Your task to perform on an android device: Open Maps and search for coffee Image 0: 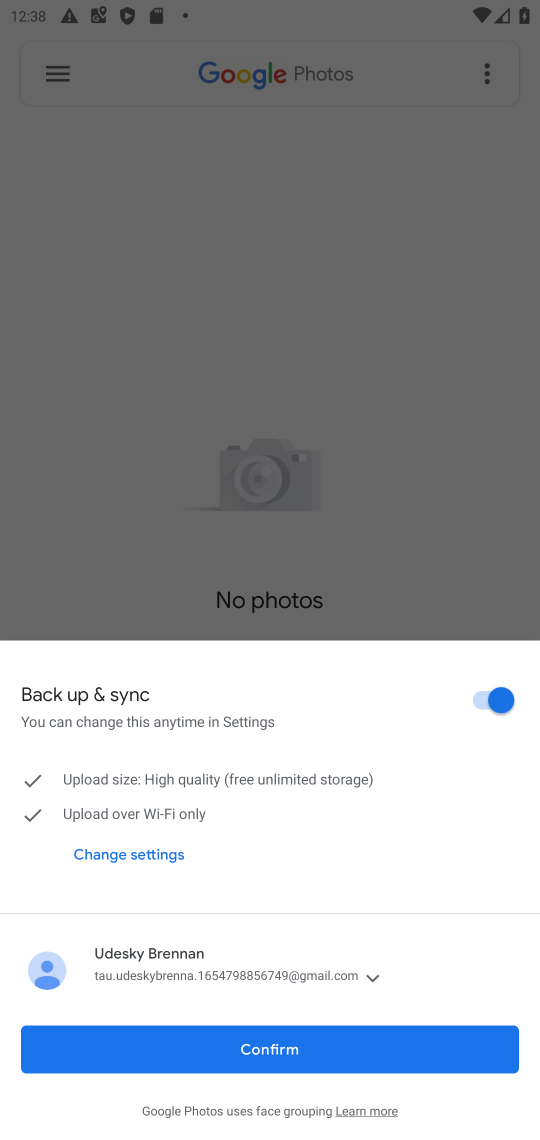
Step 0: press home button
Your task to perform on an android device: Open Maps and search for coffee Image 1: 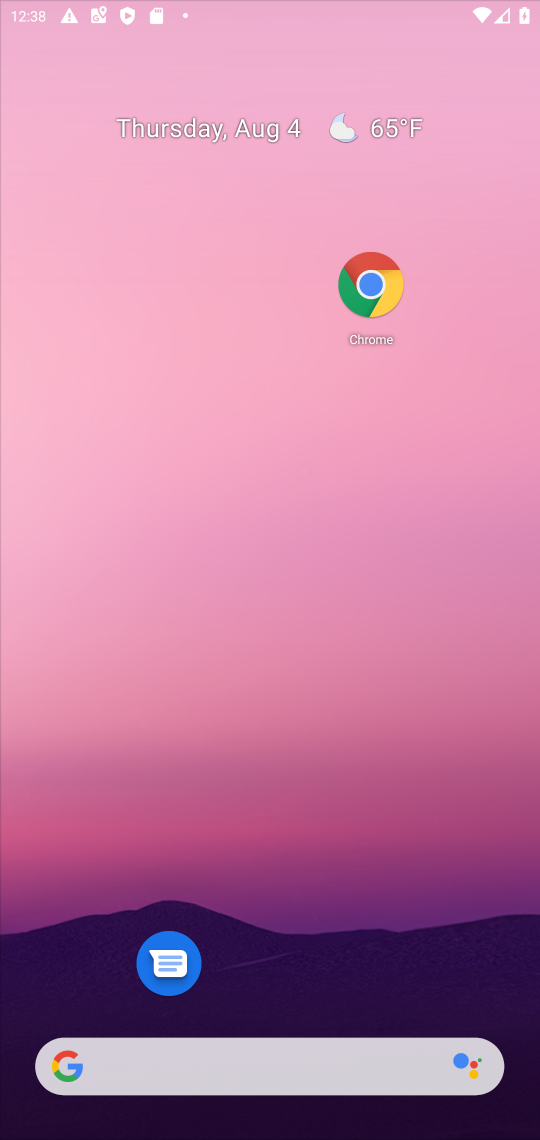
Step 1: drag from (157, 1057) to (230, 275)
Your task to perform on an android device: Open Maps and search for coffee Image 2: 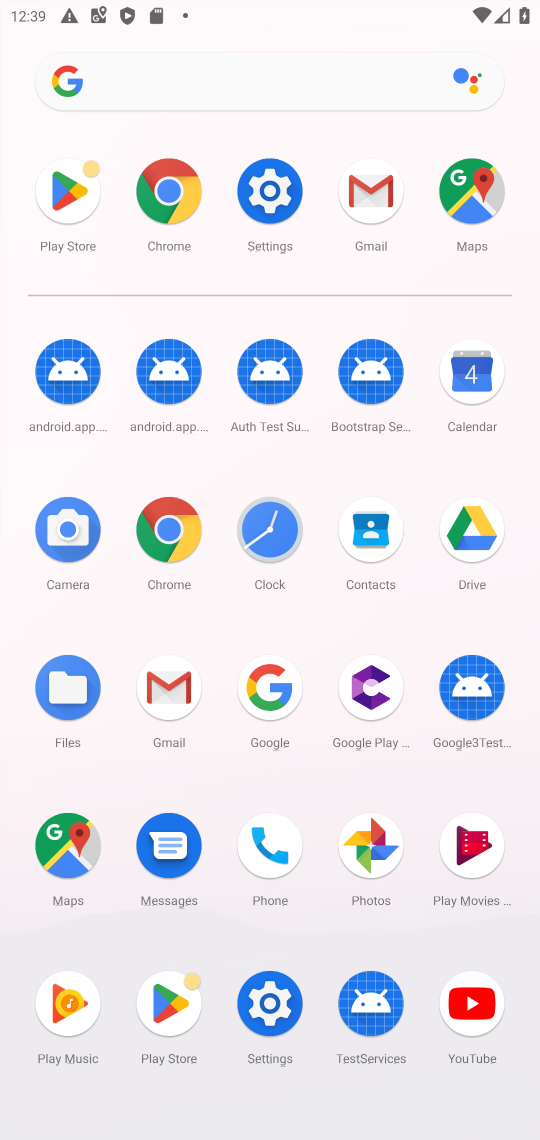
Step 2: click (62, 858)
Your task to perform on an android device: Open Maps and search for coffee Image 3: 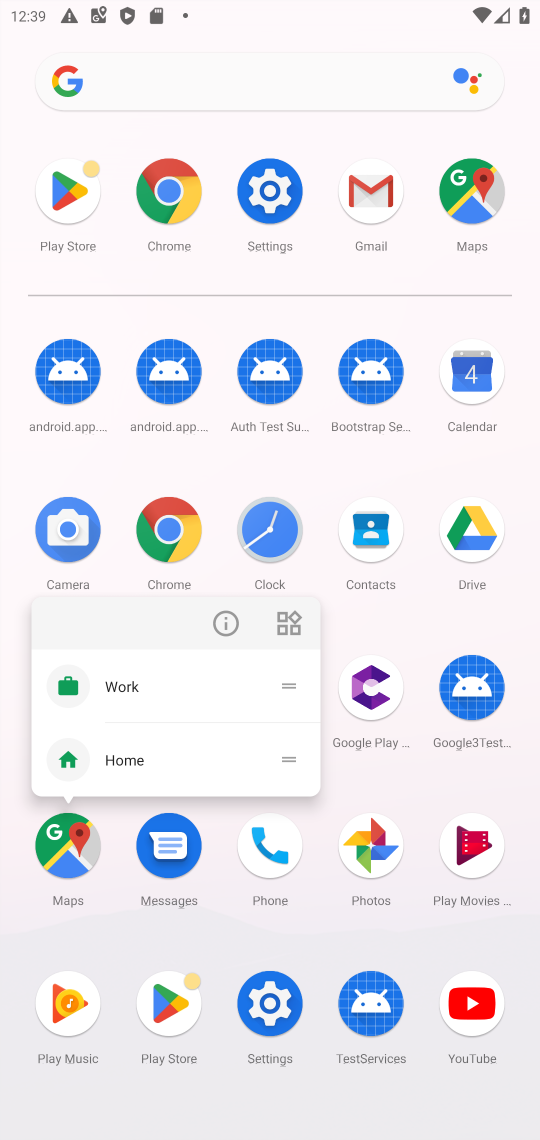
Step 3: click (62, 858)
Your task to perform on an android device: Open Maps and search for coffee Image 4: 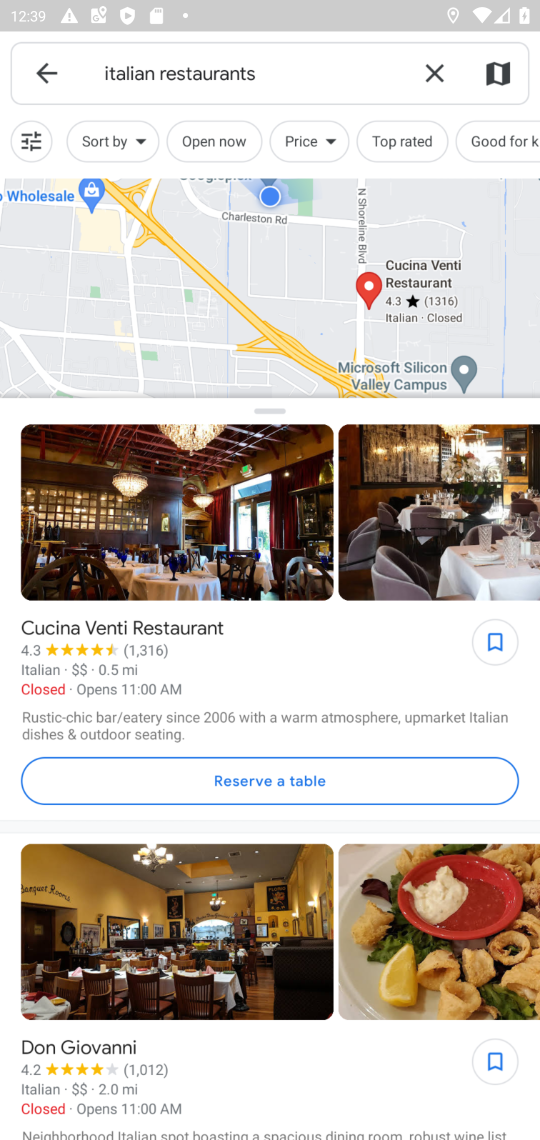
Step 4: click (452, 70)
Your task to perform on an android device: Open Maps and search for coffee Image 5: 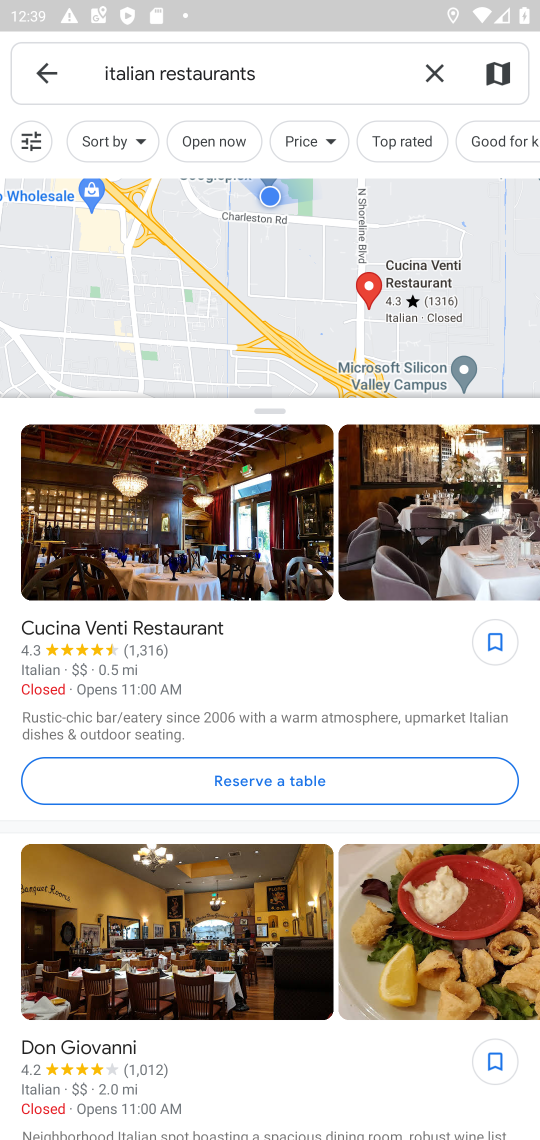
Step 5: click (436, 64)
Your task to perform on an android device: Open Maps and search for coffee Image 6: 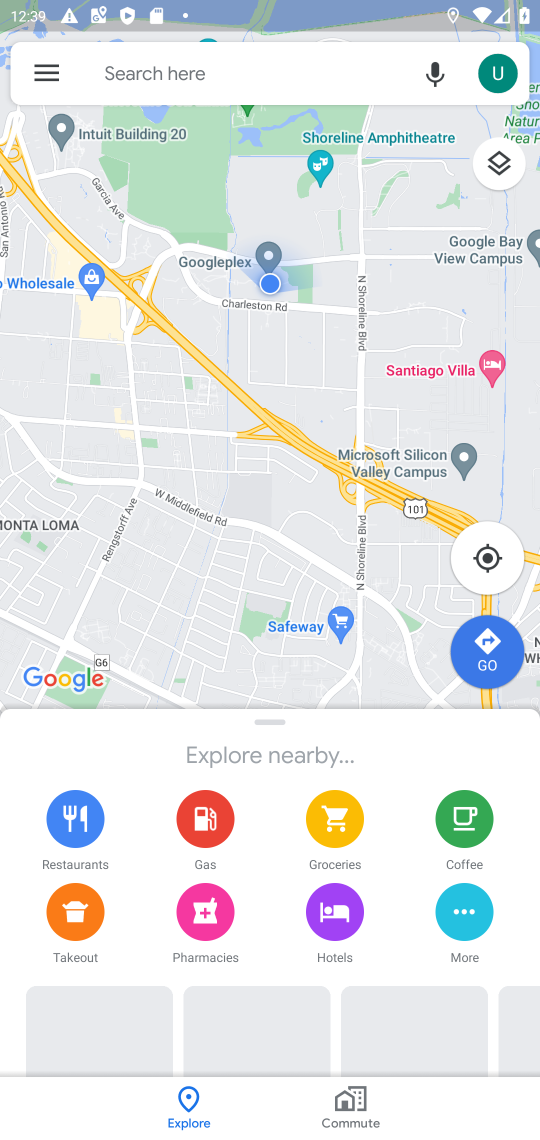
Step 6: click (250, 64)
Your task to perform on an android device: Open Maps and search for coffee Image 7: 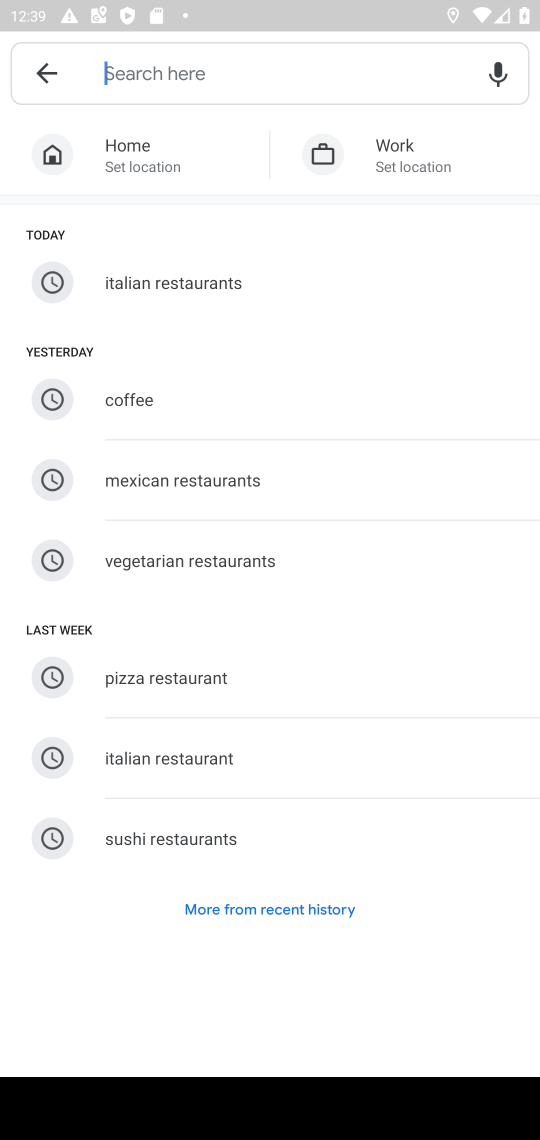
Step 7: click (172, 408)
Your task to perform on an android device: Open Maps and search for coffee Image 8: 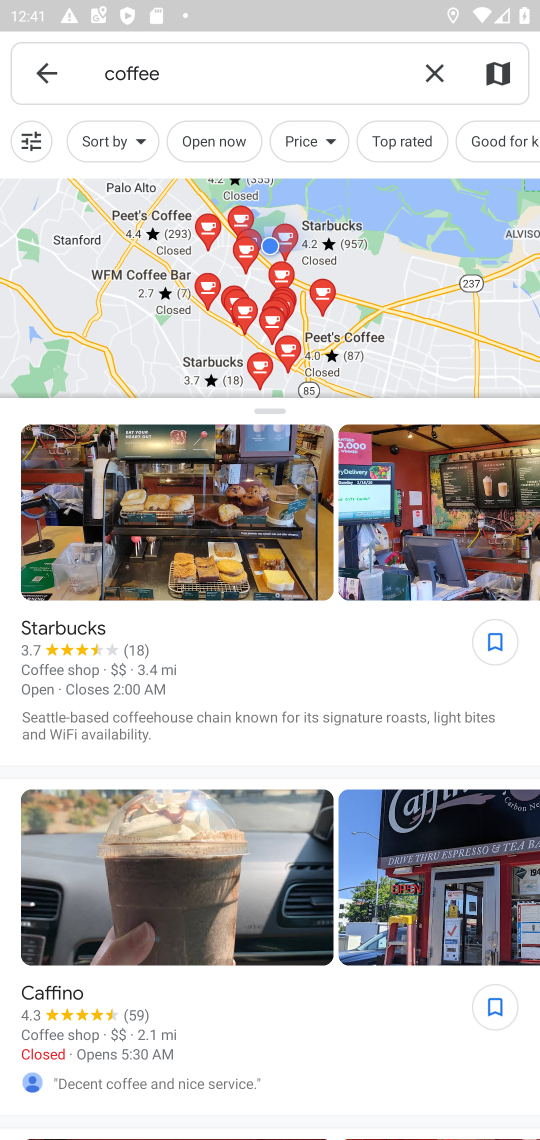
Step 8: task complete